Your task to perform on an android device: Open network settings Image 0: 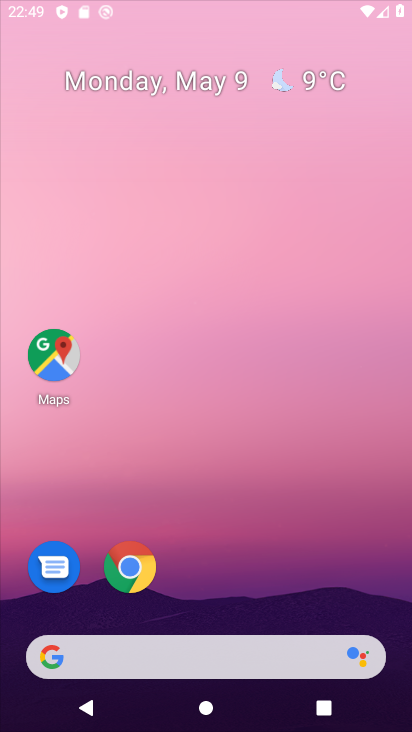
Step 0: drag from (256, 582) to (203, 284)
Your task to perform on an android device: Open network settings Image 1: 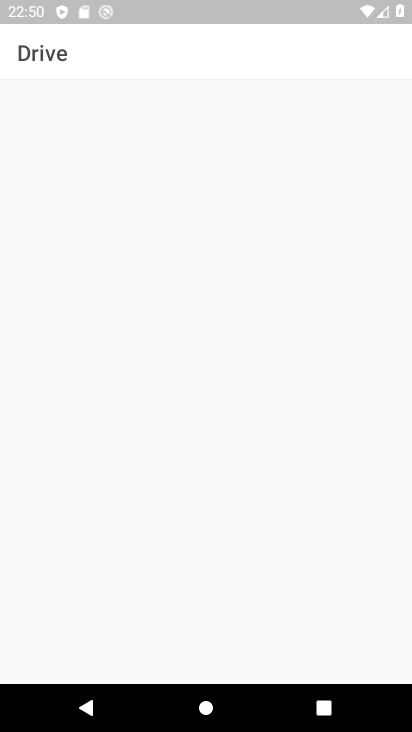
Step 1: press home button
Your task to perform on an android device: Open network settings Image 2: 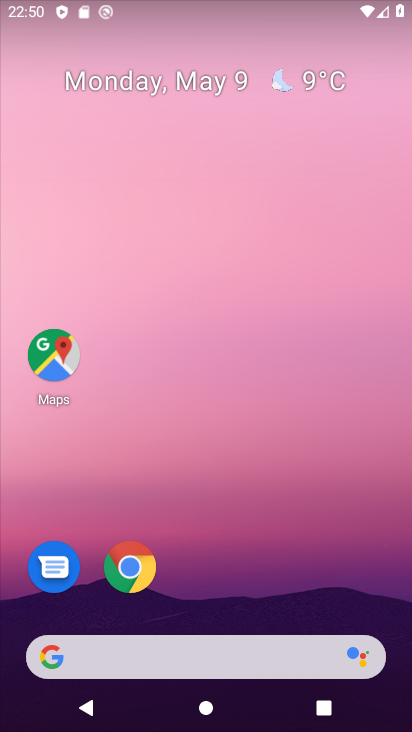
Step 2: drag from (258, 597) to (199, 149)
Your task to perform on an android device: Open network settings Image 3: 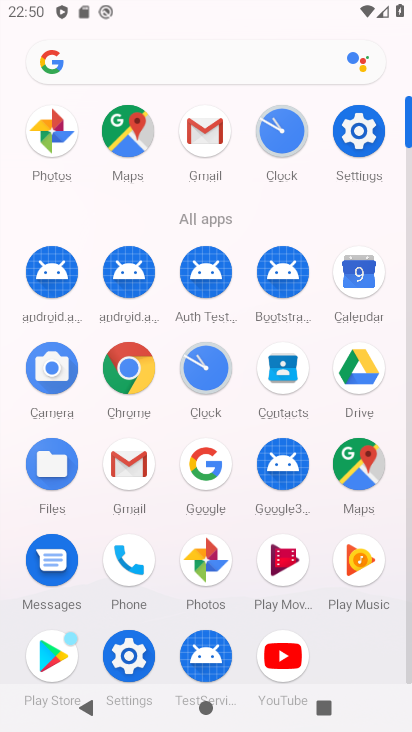
Step 3: click (359, 128)
Your task to perform on an android device: Open network settings Image 4: 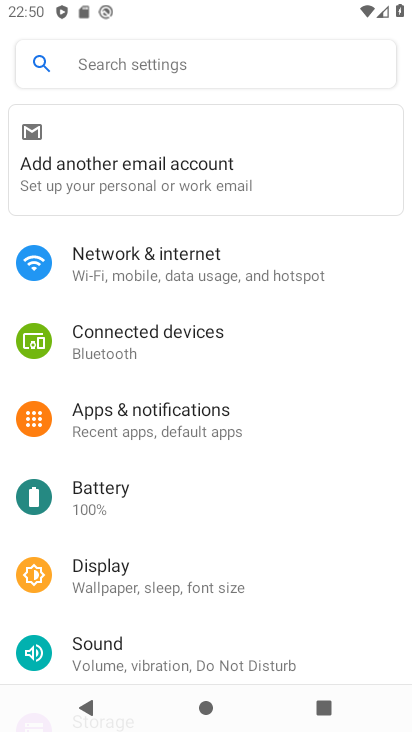
Step 4: click (142, 261)
Your task to perform on an android device: Open network settings Image 5: 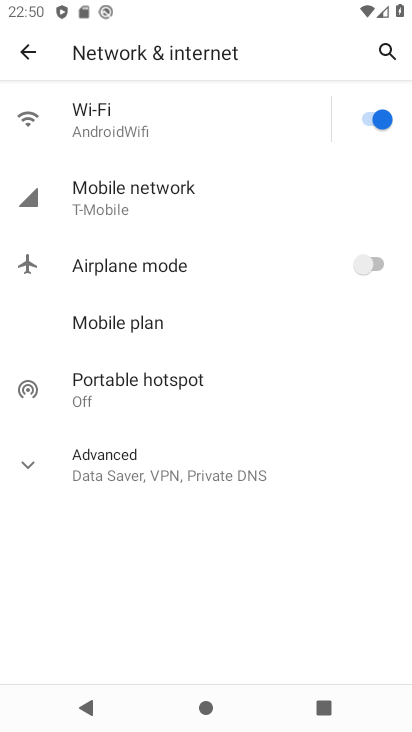
Step 5: click (155, 185)
Your task to perform on an android device: Open network settings Image 6: 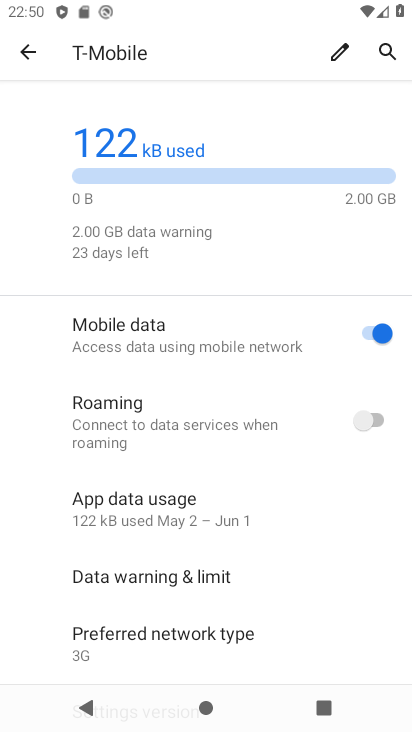
Step 6: task complete